Your task to perform on an android device: toggle javascript in the chrome app Image 0: 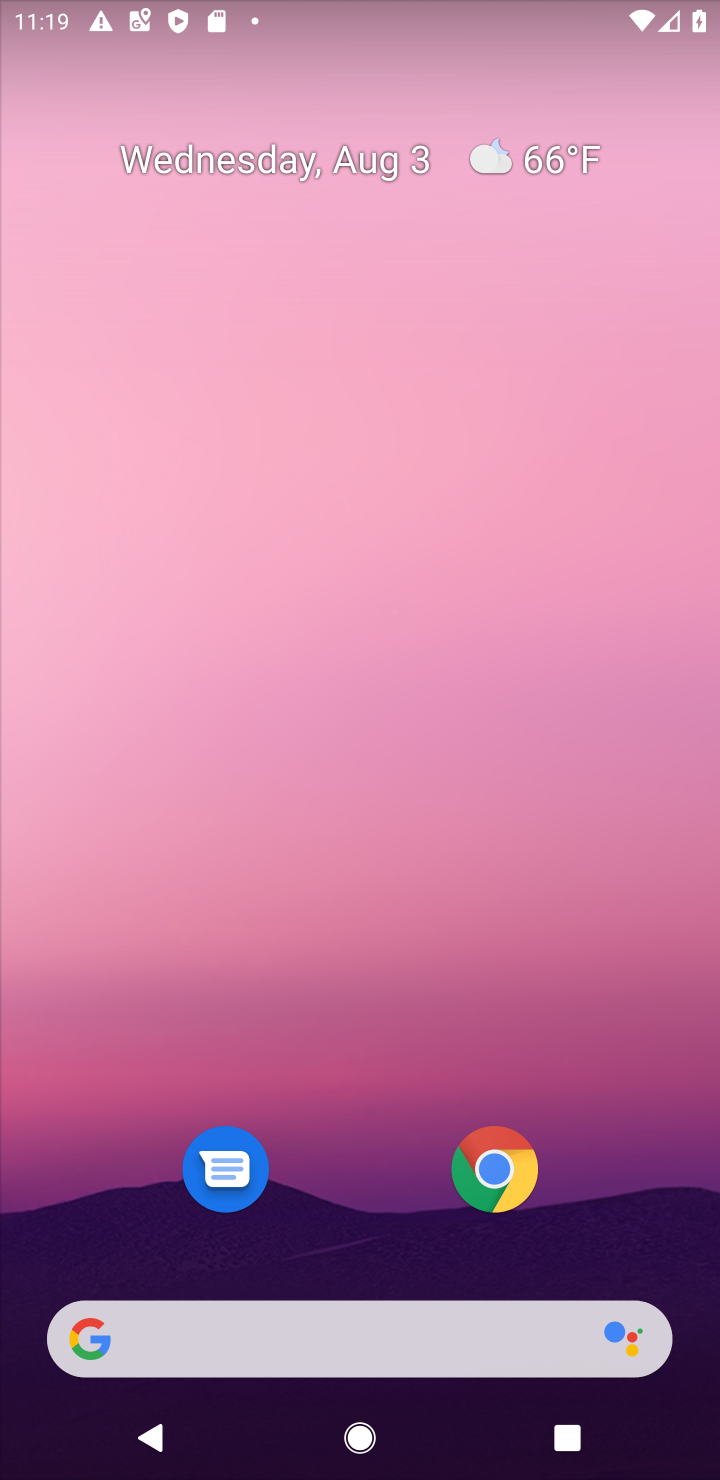
Step 0: click (501, 1185)
Your task to perform on an android device: toggle javascript in the chrome app Image 1: 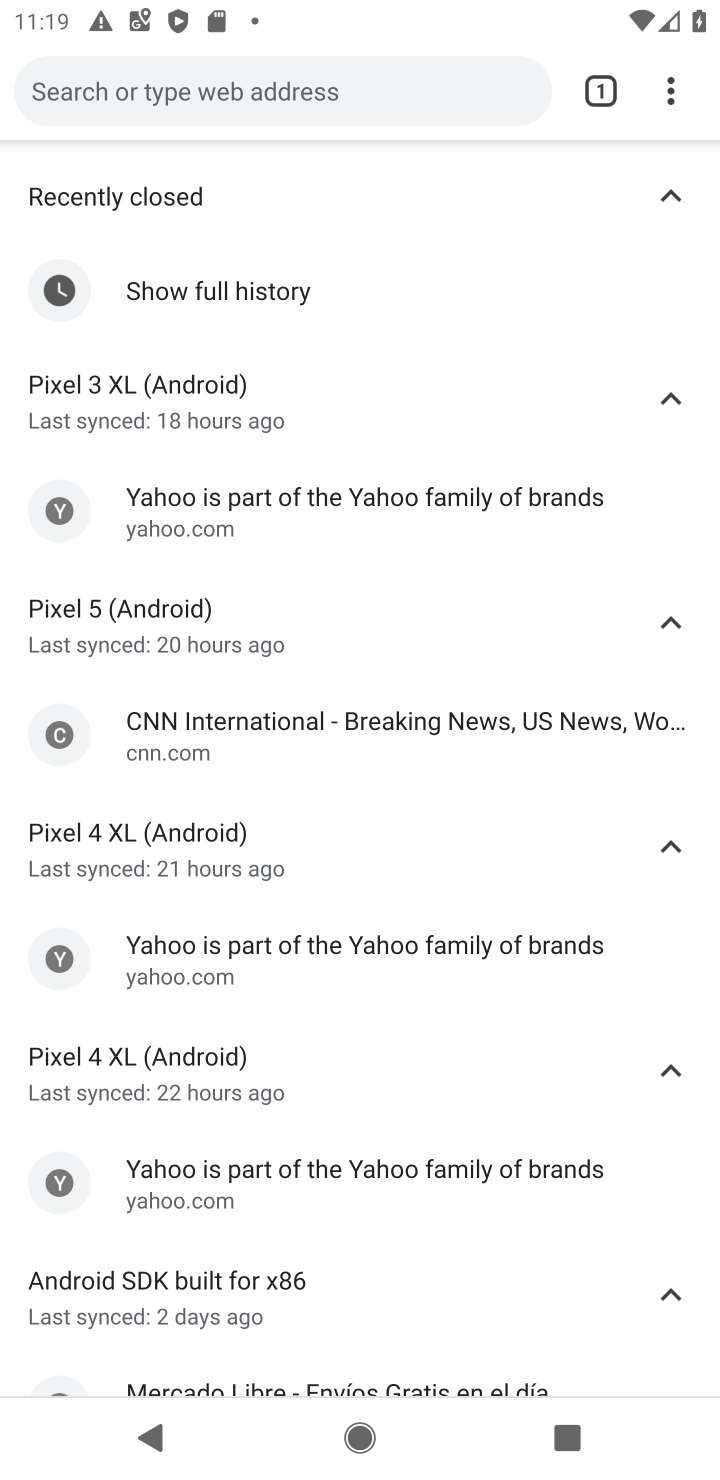
Step 1: drag from (669, 97) to (412, 774)
Your task to perform on an android device: toggle javascript in the chrome app Image 2: 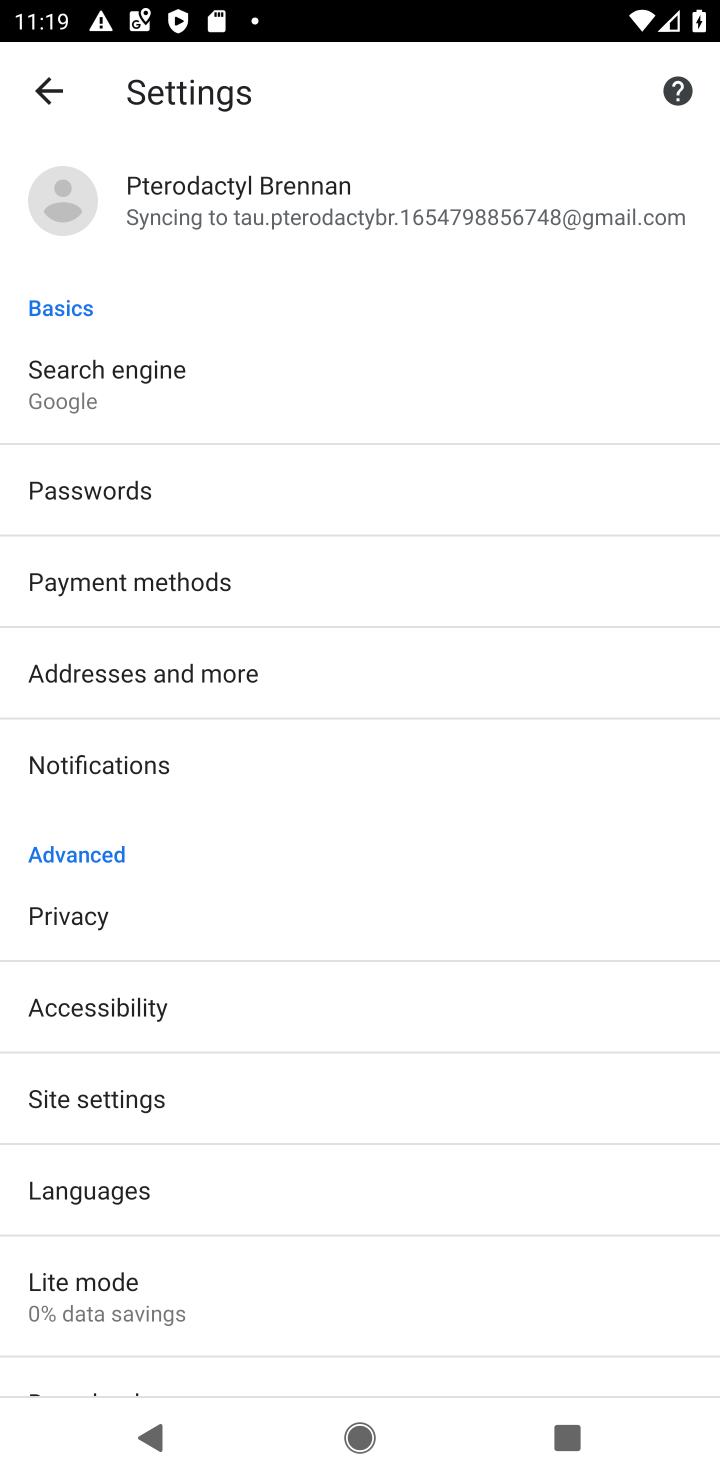
Step 2: click (117, 1113)
Your task to perform on an android device: toggle javascript in the chrome app Image 3: 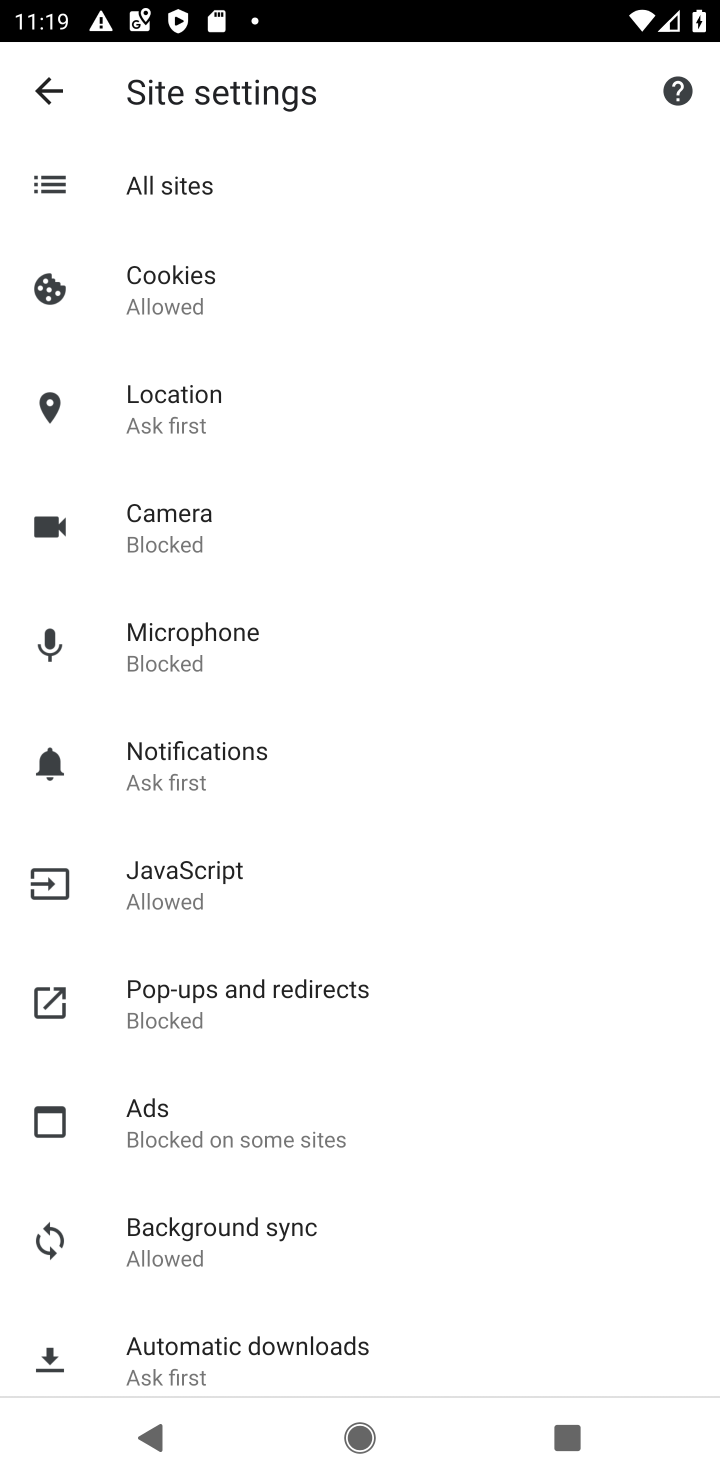
Step 3: click (164, 891)
Your task to perform on an android device: toggle javascript in the chrome app Image 4: 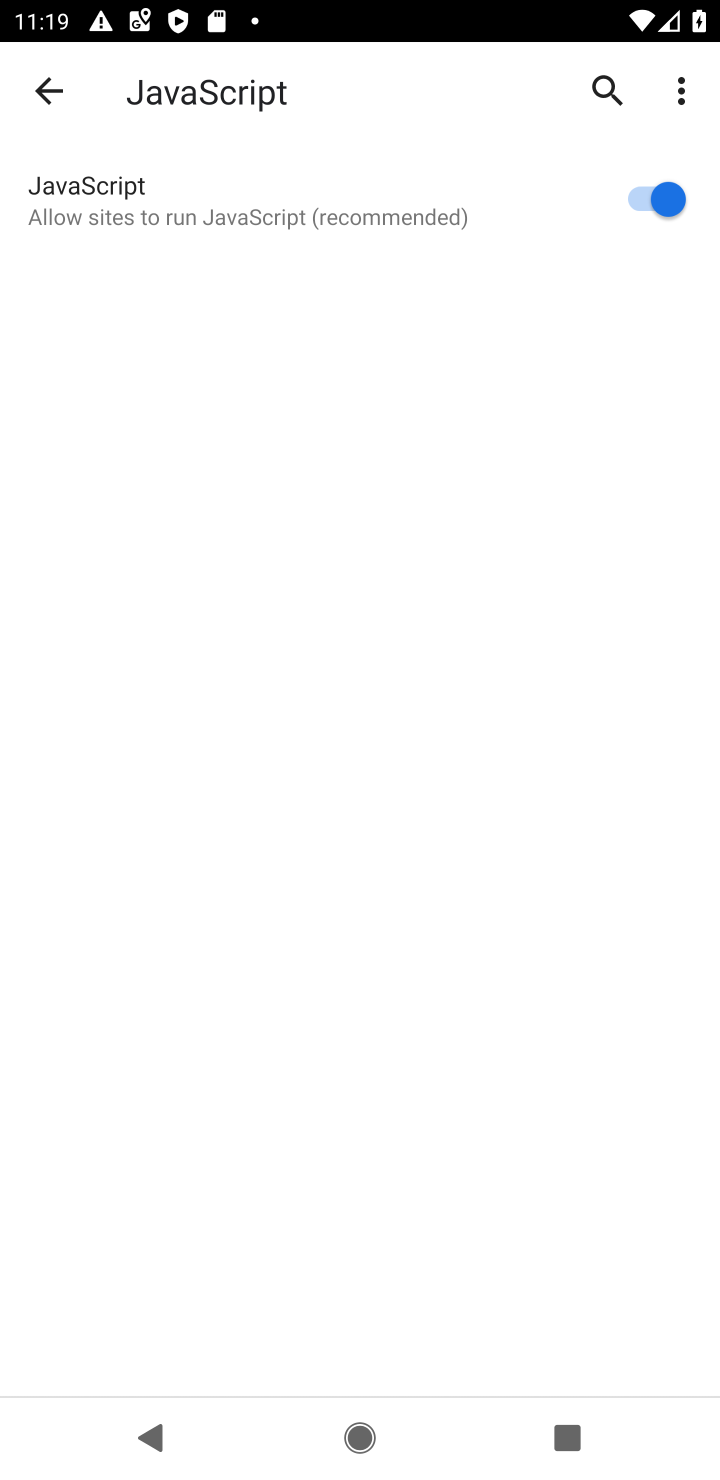
Step 4: click (669, 186)
Your task to perform on an android device: toggle javascript in the chrome app Image 5: 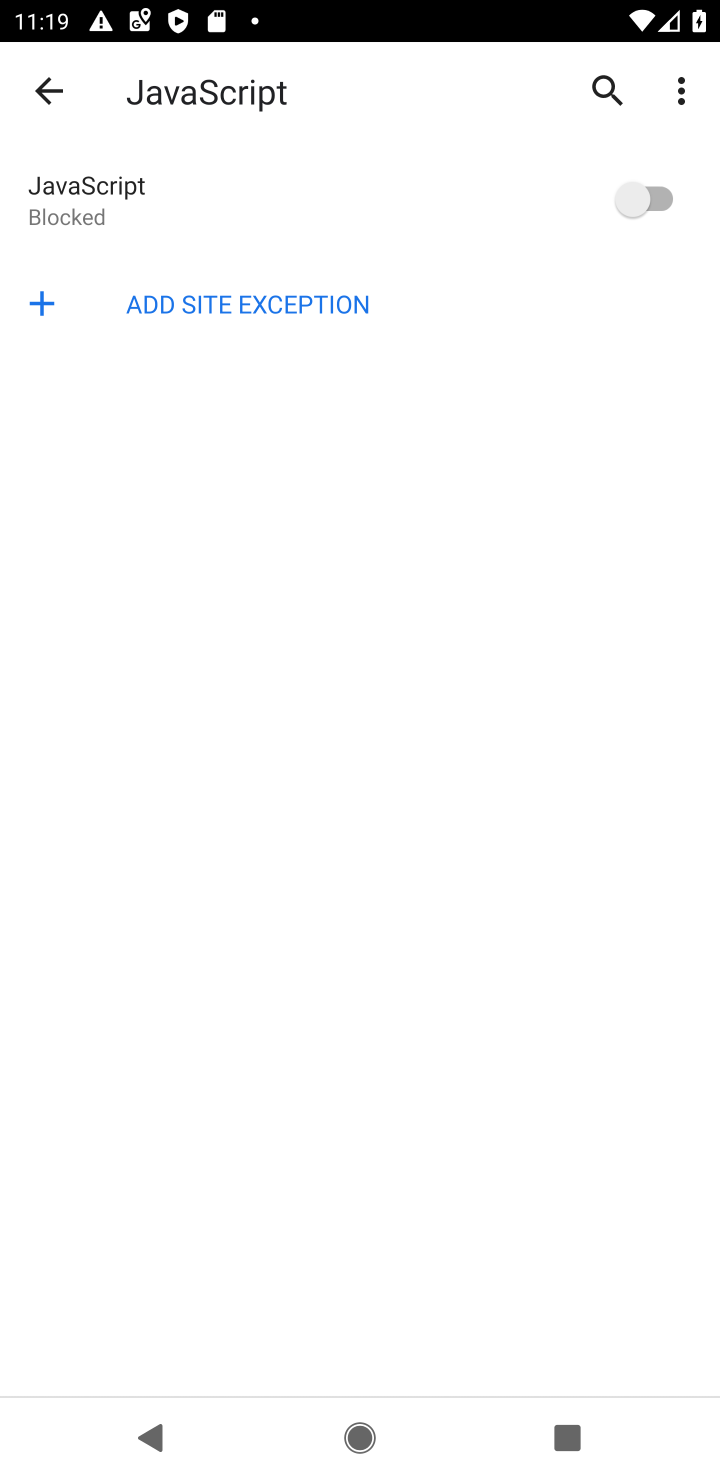
Step 5: task complete